Your task to perform on an android device: Open Google Chrome Image 0: 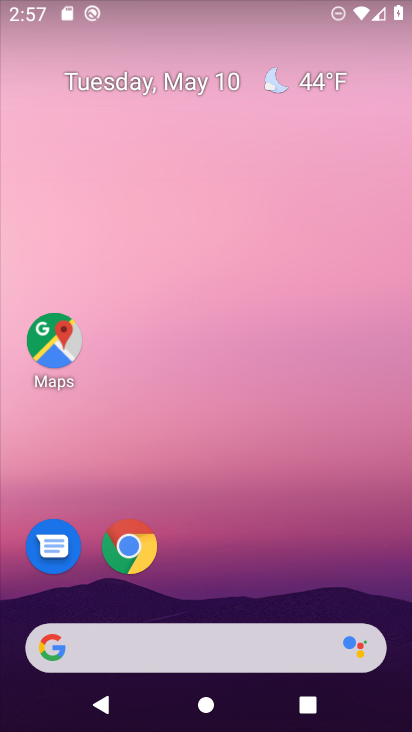
Step 0: drag from (189, 621) to (232, 184)
Your task to perform on an android device: Open Google Chrome Image 1: 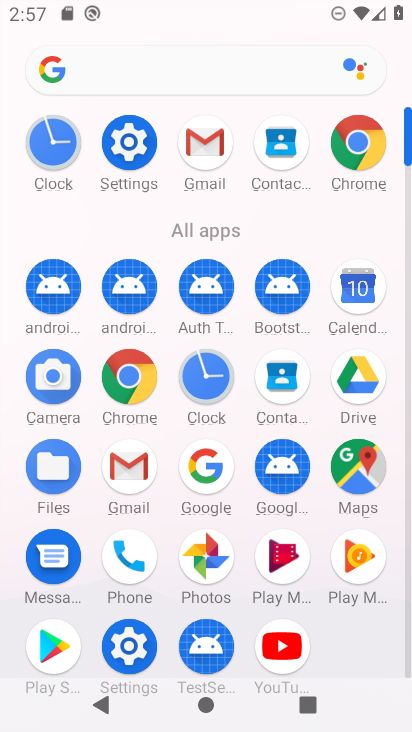
Step 1: click (361, 146)
Your task to perform on an android device: Open Google Chrome Image 2: 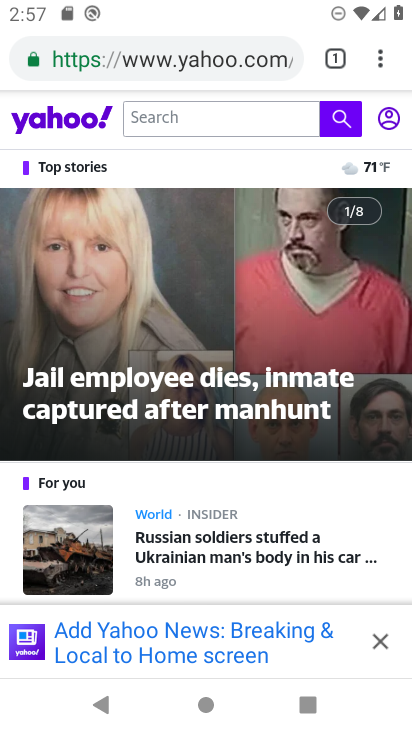
Step 2: task complete